Your task to perform on an android device: open device folders in google photos Image 0: 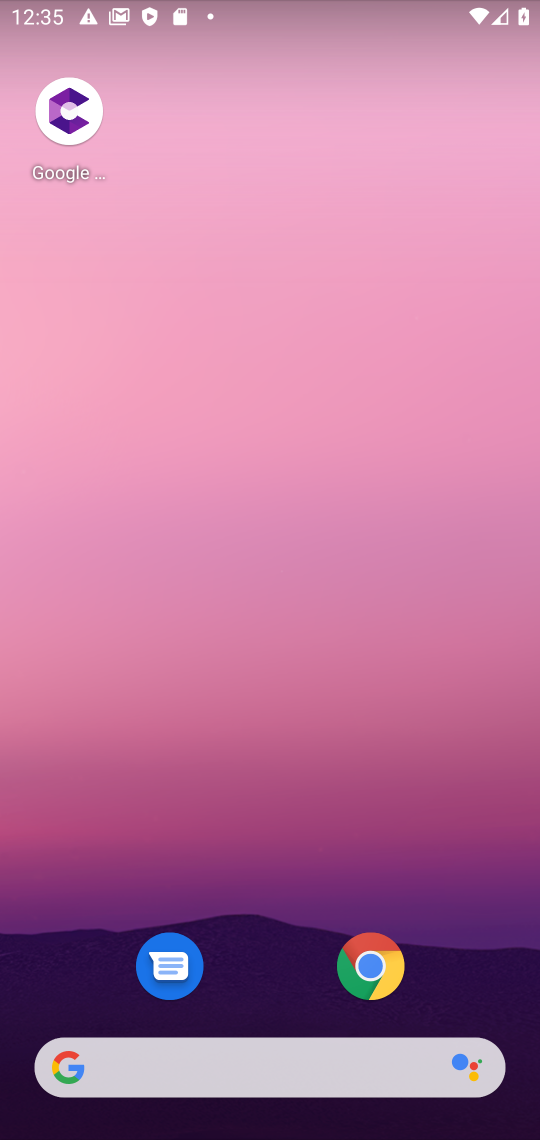
Step 0: drag from (323, 871) to (332, 43)
Your task to perform on an android device: open device folders in google photos Image 1: 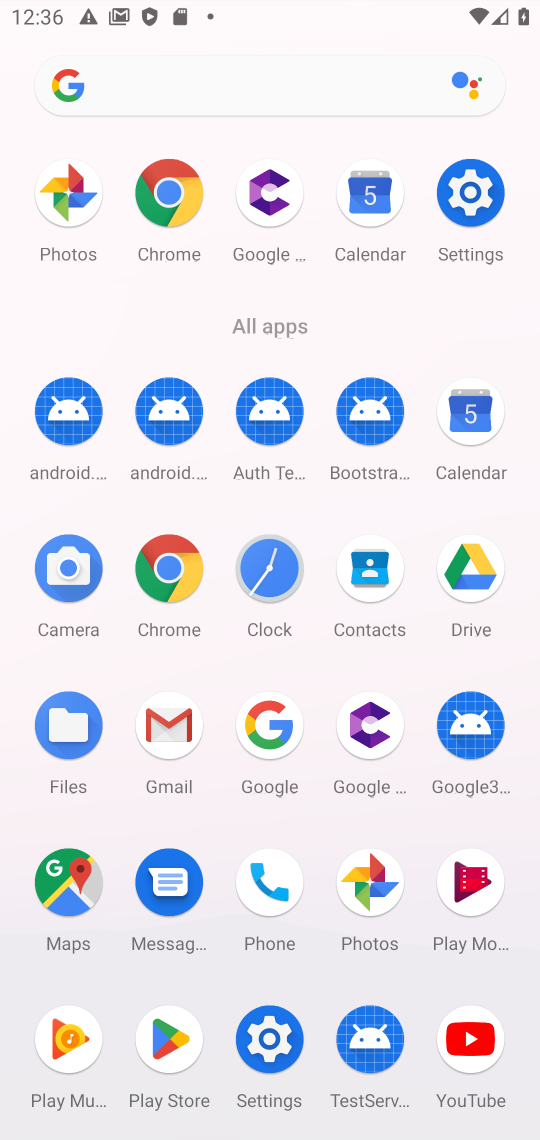
Step 1: click (369, 886)
Your task to perform on an android device: open device folders in google photos Image 2: 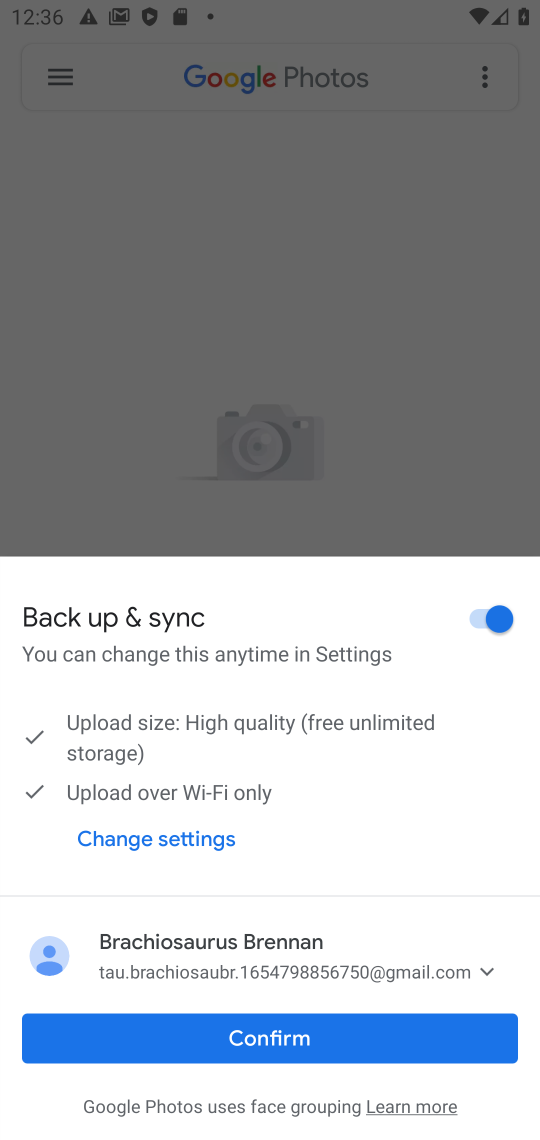
Step 2: click (379, 1037)
Your task to perform on an android device: open device folders in google photos Image 3: 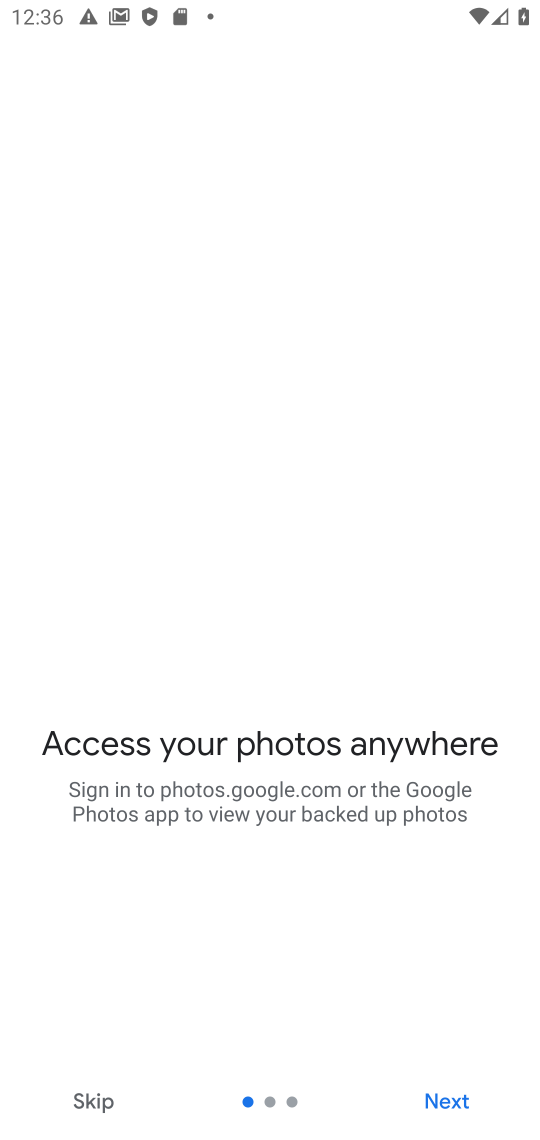
Step 3: click (437, 1094)
Your task to perform on an android device: open device folders in google photos Image 4: 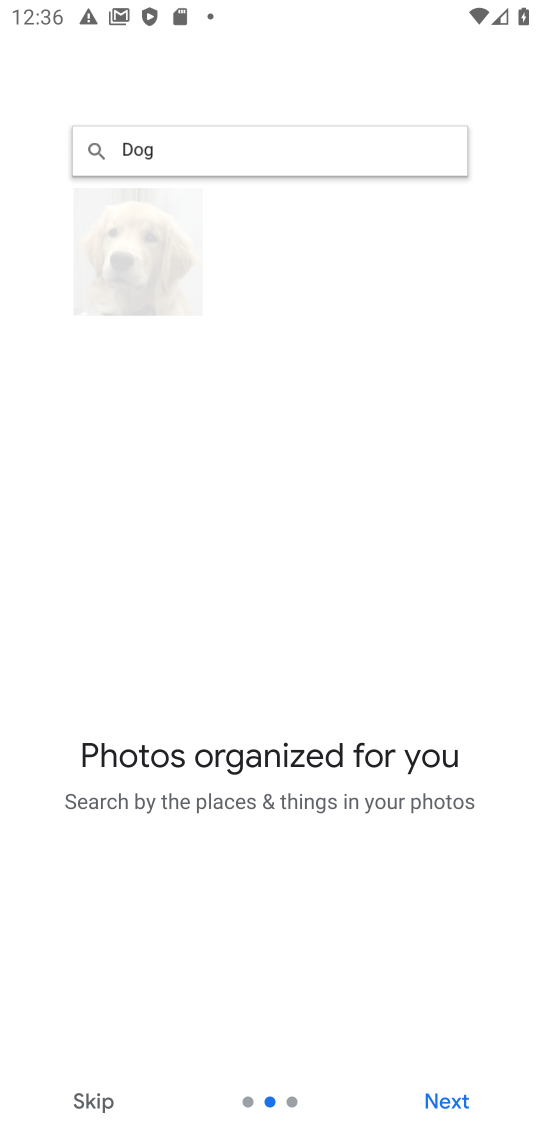
Step 4: click (437, 1094)
Your task to perform on an android device: open device folders in google photos Image 5: 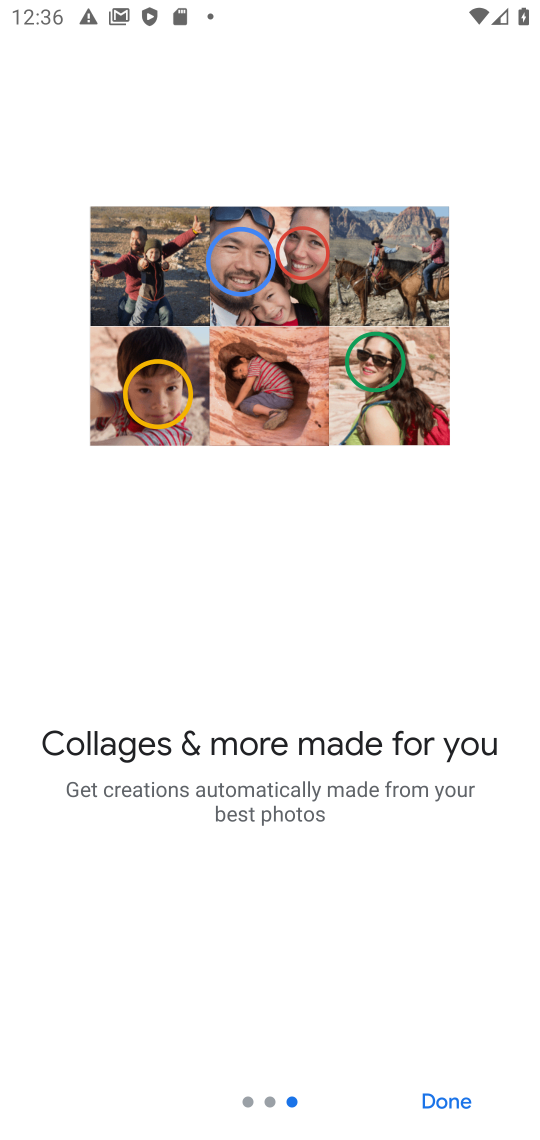
Step 5: click (437, 1094)
Your task to perform on an android device: open device folders in google photos Image 6: 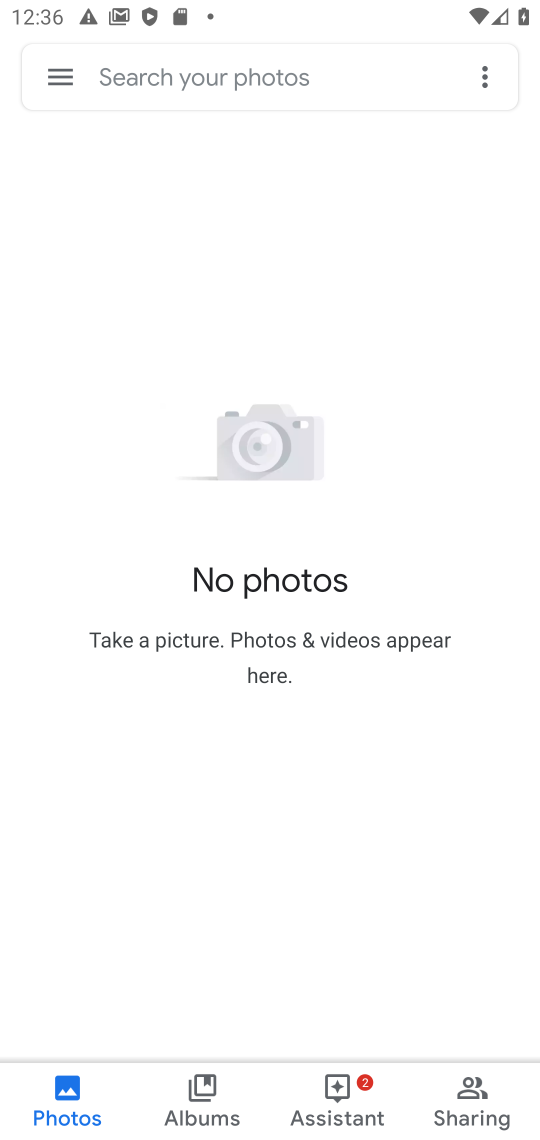
Step 6: click (52, 62)
Your task to perform on an android device: open device folders in google photos Image 7: 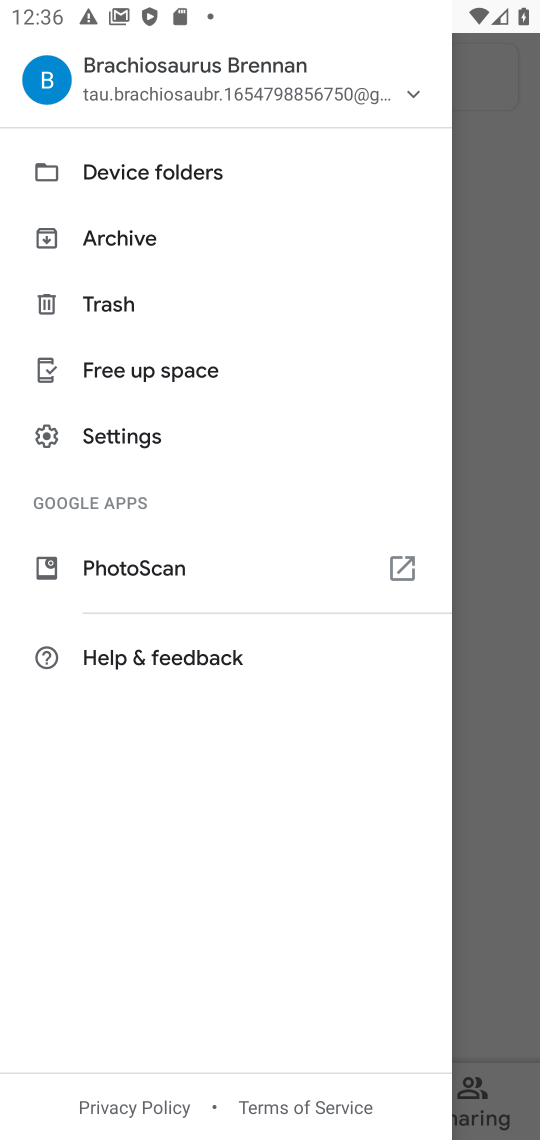
Step 7: click (121, 184)
Your task to perform on an android device: open device folders in google photos Image 8: 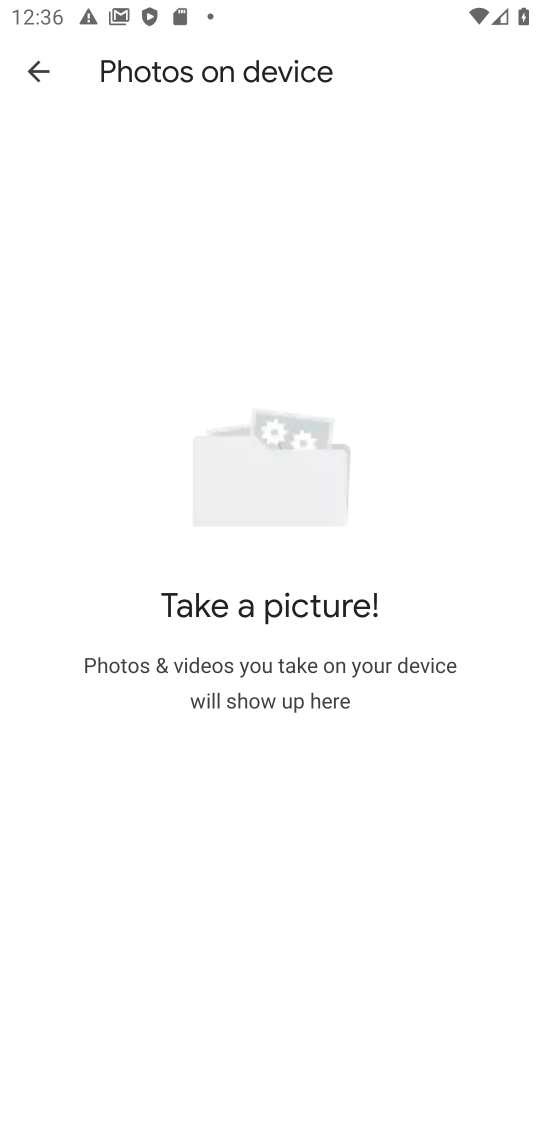
Step 8: task complete